Your task to perform on an android device: change notifications settings Image 0: 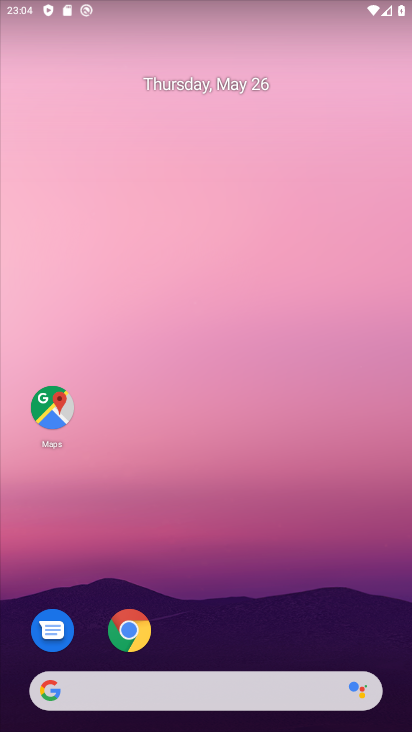
Step 0: drag from (229, 585) to (305, 142)
Your task to perform on an android device: change notifications settings Image 1: 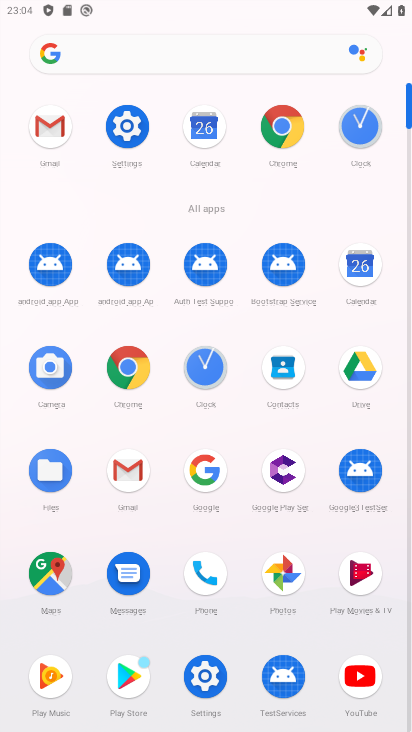
Step 1: click (124, 126)
Your task to perform on an android device: change notifications settings Image 2: 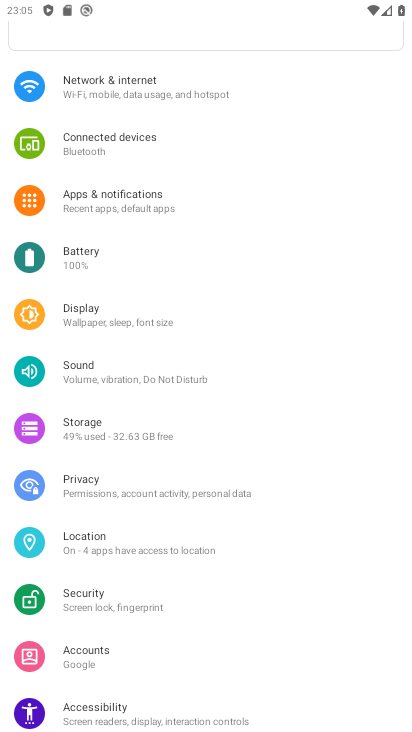
Step 2: click (110, 212)
Your task to perform on an android device: change notifications settings Image 3: 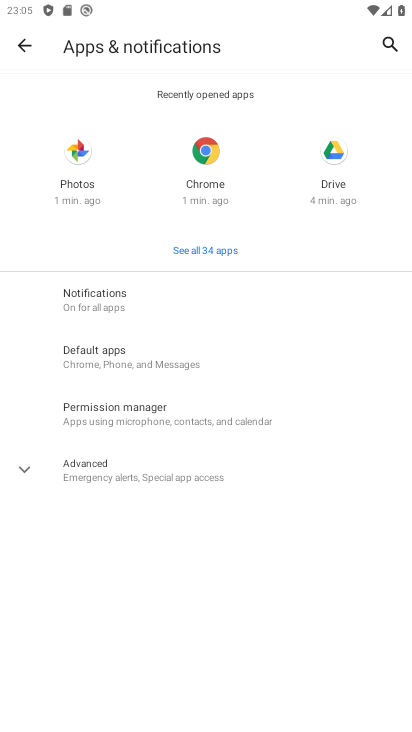
Step 3: click (84, 304)
Your task to perform on an android device: change notifications settings Image 4: 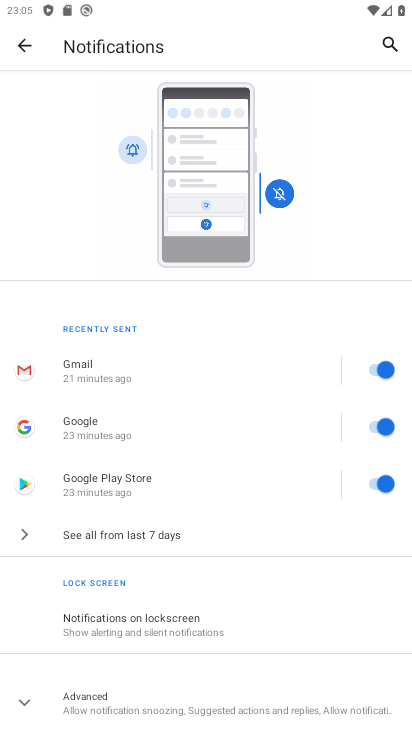
Step 4: drag from (103, 640) to (174, 518)
Your task to perform on an android device: change notifications settings Image 5: 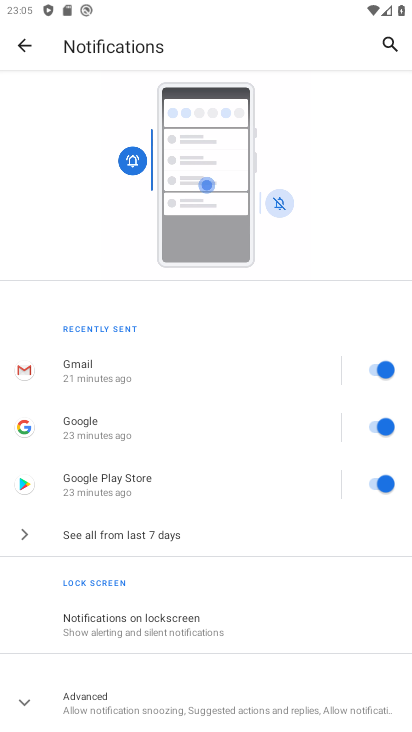
Step 5: click (211, 712)
Your task to perform on an android device: change notifications settings Image 6: 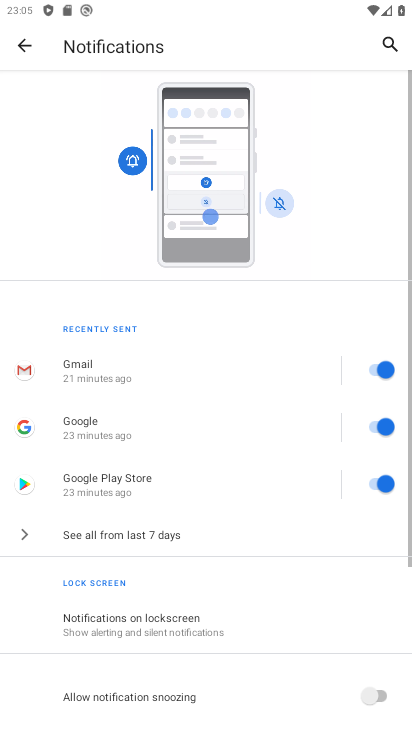
Step 6: drag from (202, 675) to (249, 537)
Your task to perform on an android device: change notifications settings Image 7: 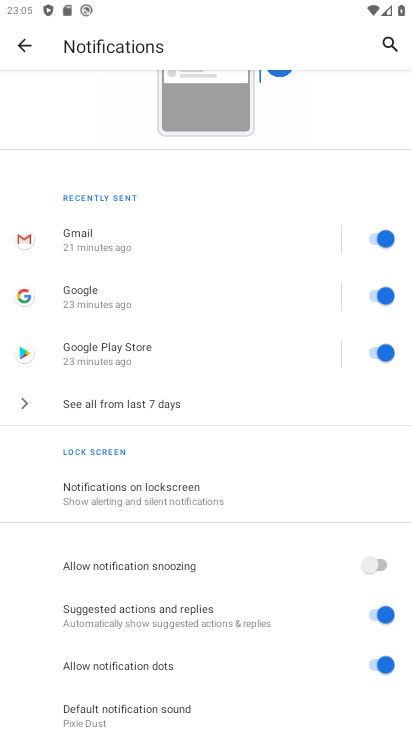
Step 7: drag from (199, 642) to (253, 554)
Your task to perform on an android device: change notifications settings Image 8: 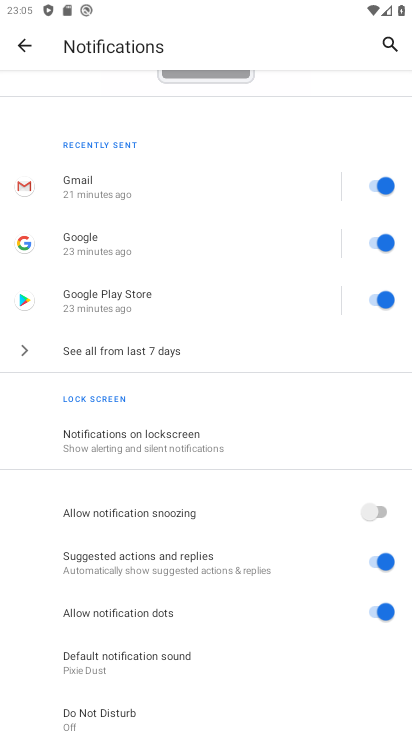
Step 8: click (385, 612)
Your task to perform on an android device: change notifications settings Image 9: 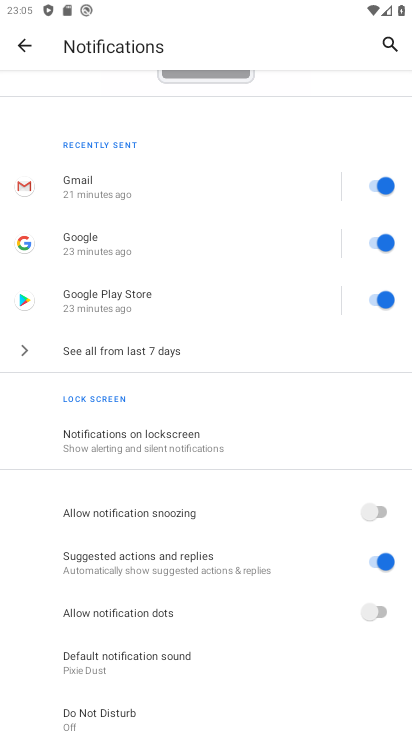
Step 9: task complete